Your task to perform on an android device: Open the calendar app, open the side menu, and click the "Day" option Image 0: 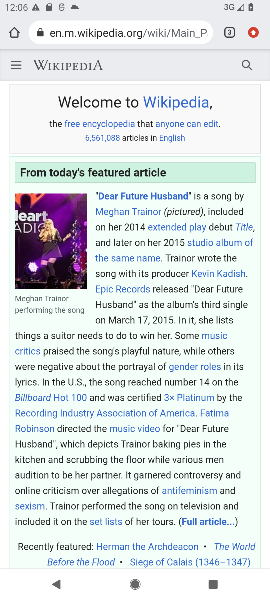
Step 0: press home button
Your task to perform on an android device: Open the calendar app, open the side menu, and click the "Day" option Image 1: 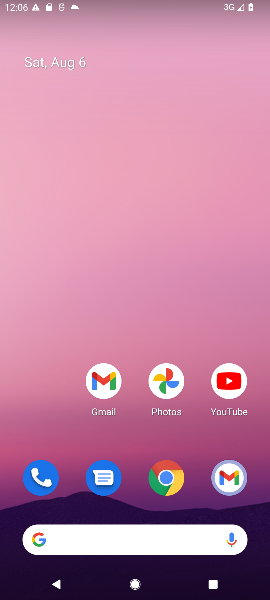
Step 1: drag from (99, 525) to (101, 274)
Your task to perform on an android device: Open the calendar app, open the side menu, and click the "Day" option Image 2: 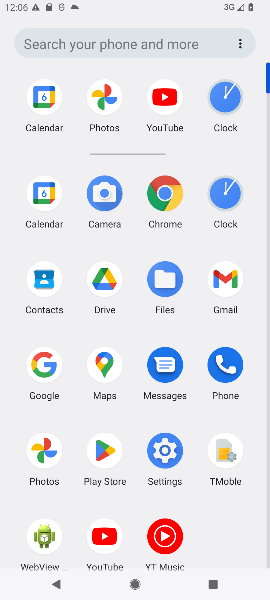
Step 2: click (38, 198)
Your task to perform on an android device: Open the calendar app, open the side menu, and click the "Day" option Image 3: 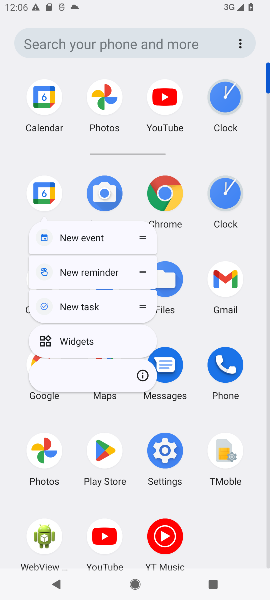
Step 3: click (44, 196)
Your task to perform on an android device: Open the calendar app, open the side menu, and click the "Day" option Image 4: 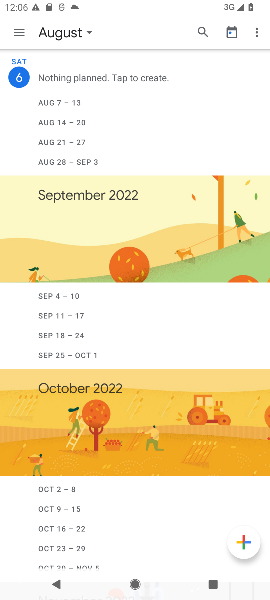
Step 4: click (14, 38)
Your task to perform on an android device: Open the calendar app, open the side menu, and click the "Day" option Image 5: 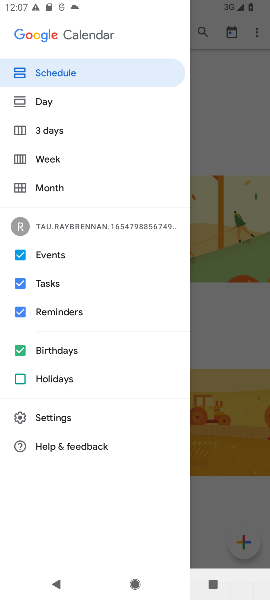
Step 5: click (42, 108)
Your task to perform on an android device: Open the calendar app, open the side menu, and click the "Day" option Image 6: 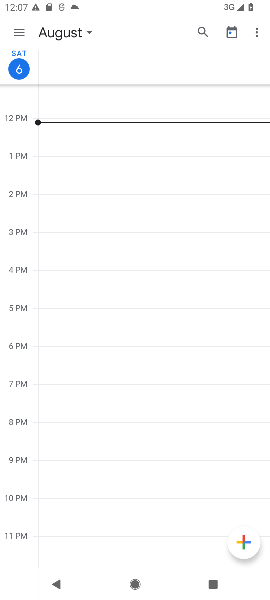
Step 6: task complete